Your task to perform on an android device: What's the weather today? Image 0: 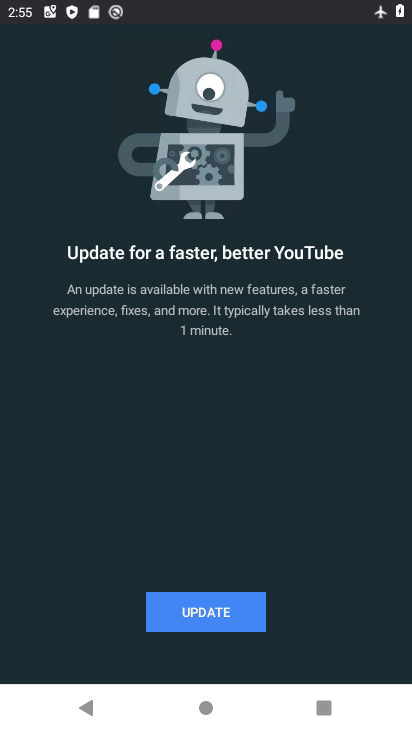
Step 0: press back button
Your task to perform on an android device: What's the weather today? Image 1: 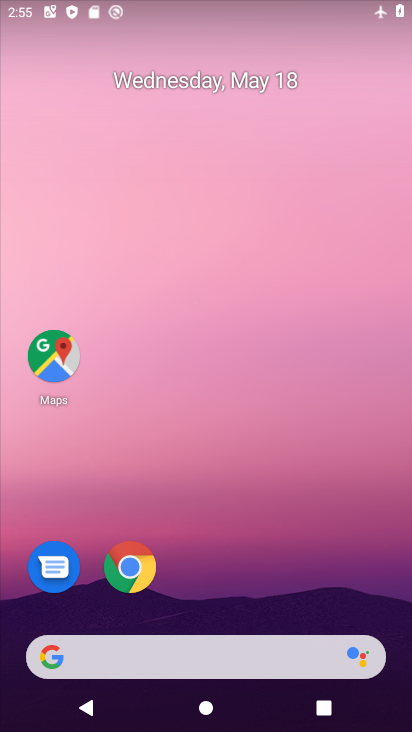
Step 1: drag from (231, 504) to (279, 210)
Your task to perform on an android device: What's the weather today? Image 2: 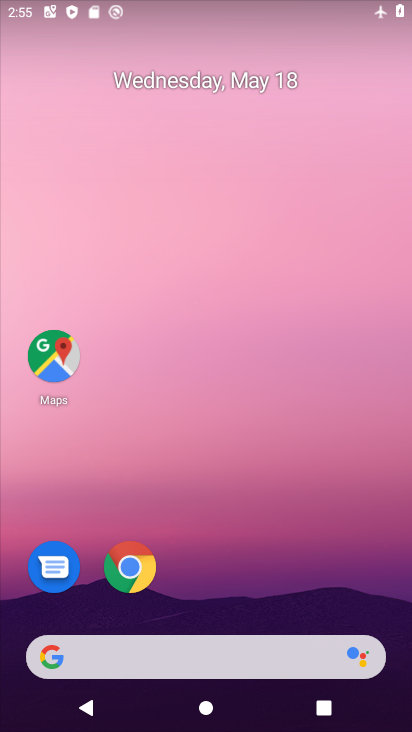
Step 2: drag from (245, 496) to (239, 238)
Your task to perform on an android device: What's the weather today? Image 3: 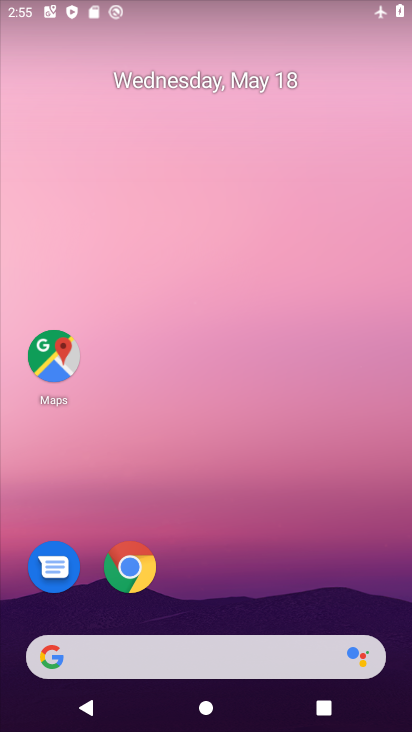
Step 3: drag from (290, 602) to (271, 163)
Your task to perform on an android device: What's the weather today? Image 4: 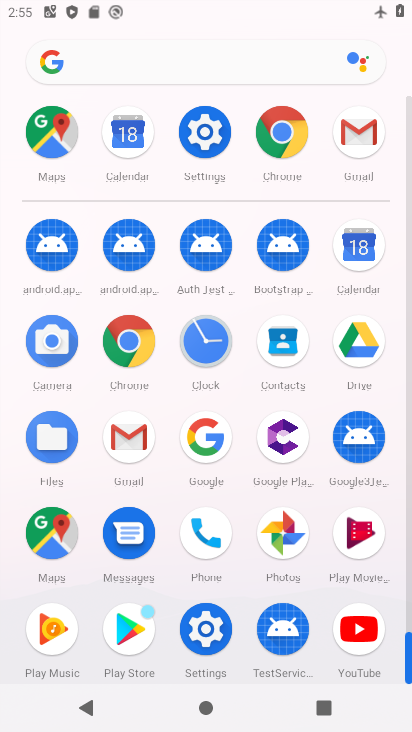
Step 4: click (276, 117)
Your task to perform on an android device: What's the weather today? Image 5: 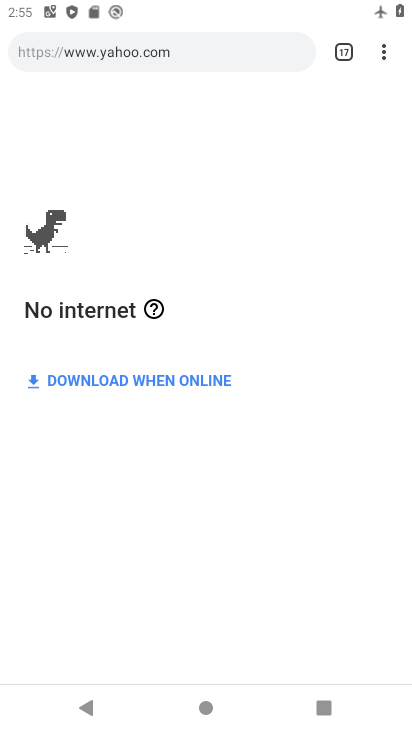
Step 5: click (378, 47)
Your task to perform on an android device: What's the weather today? Image 6: 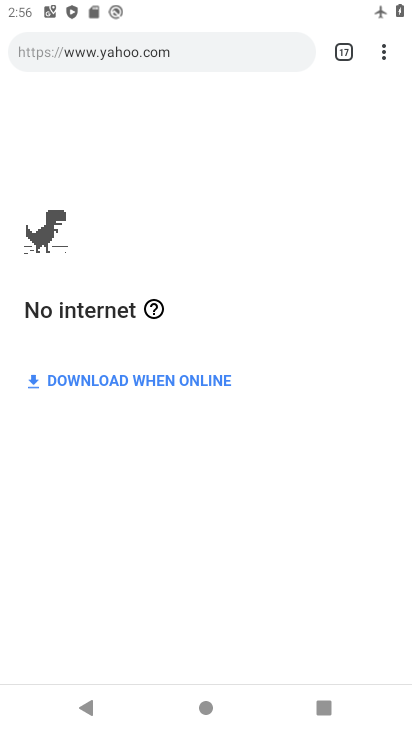
Step 6: click (377, 49)
Your task to perform on an android device: What's the weather today? Image 7: 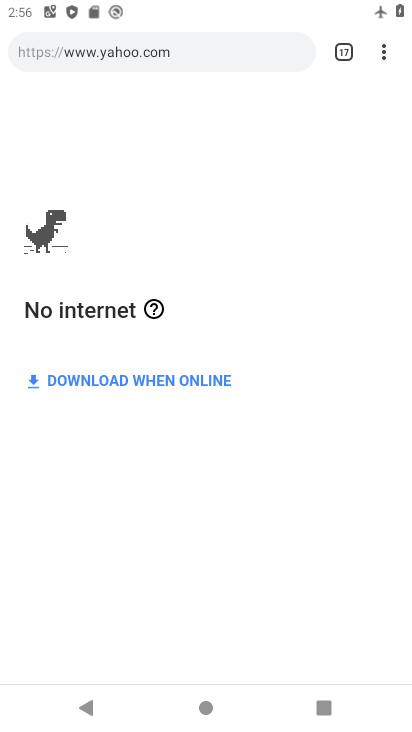
Step 7: click (379, 53)
Your task to perform on an android device: What's the weather today? Image 8: 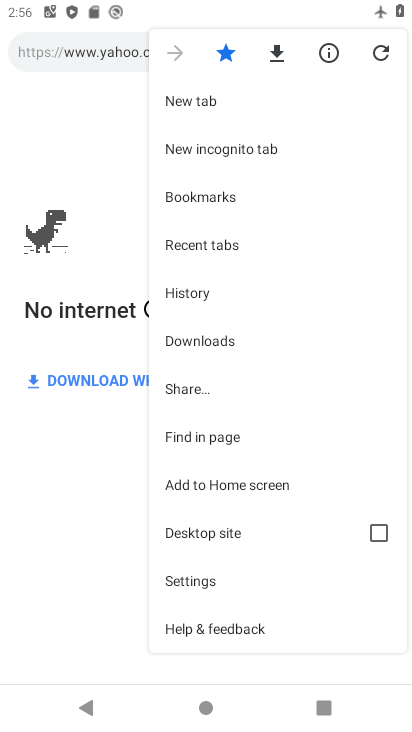
Step 8: click (222, 584)
Your task to perform on an android device: What's the weather today? Image 9: 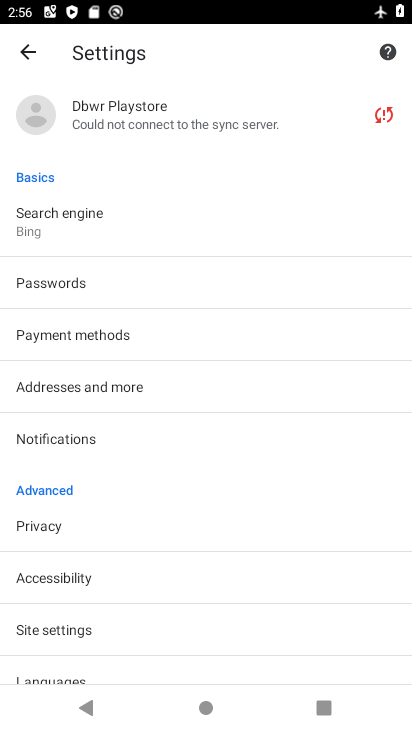
Step 9: click (42, 41)
Your task to perform on an android device: What's the weather today? Image 10: 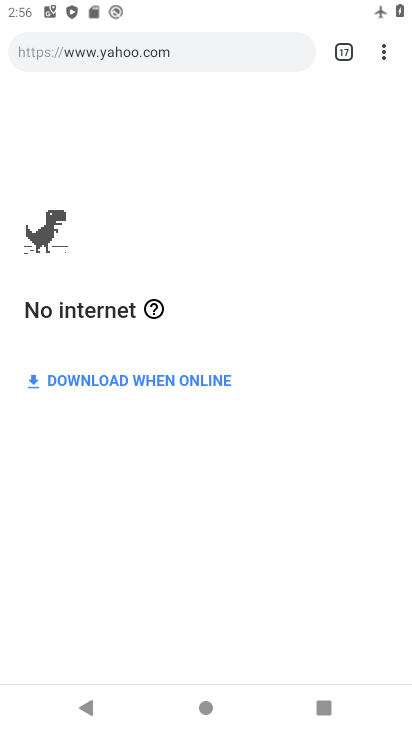
Step 10: click (371, 54)
Your task to perform on an android device: What's the weather today? Image 11: 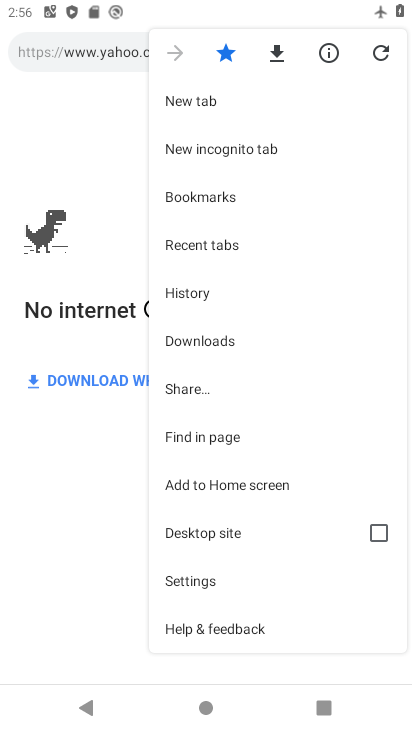
Step 11: click (204, 94)
Your task to perform on an android device: What's the weather today? Image 12: 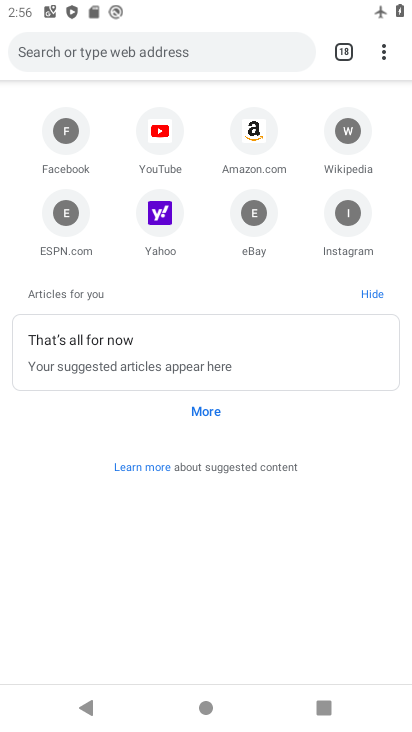
Step 12: click (129, 46)
Your task to perform on an android device: What's the weather today? Image 13: 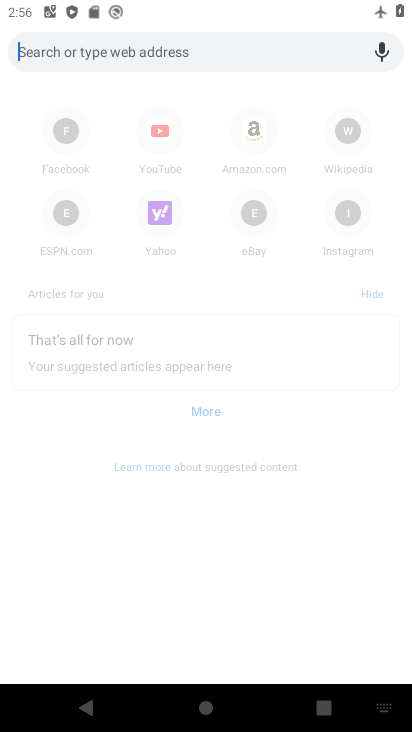
Step 13: type "What's the weather today?"
Your task to perform on an android device: What's the weather today? Image 14: 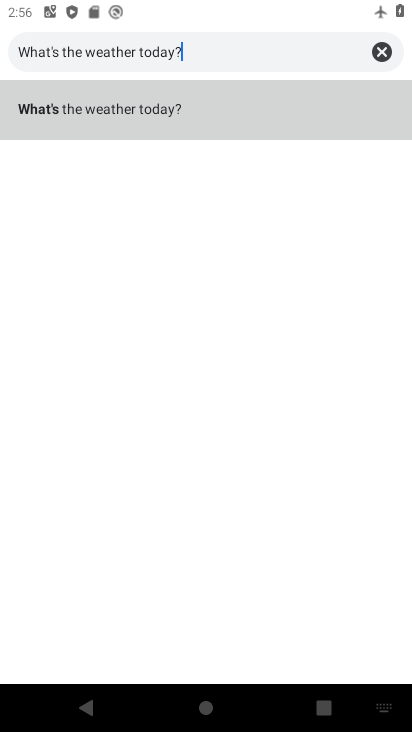
Step 14: click (192, 100)
Your task to perform on an android device: What's the weather today? Image 15: 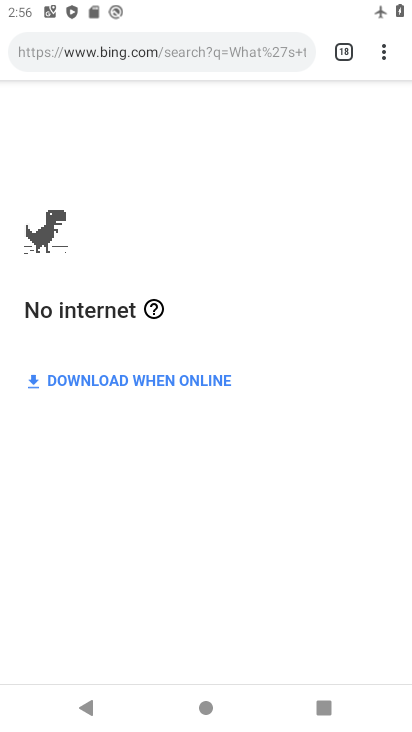
Step 15: task complete